Your task to perform on an android device: delete the emails in spam in the gmail app Image 0: 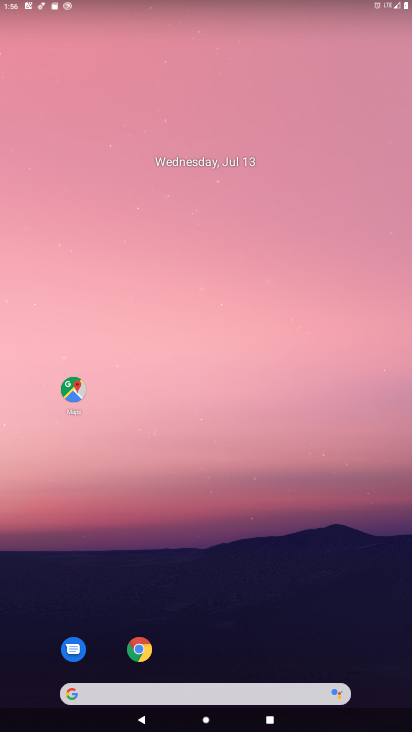
Step 0: drag from (259, 603) to (229, 133)
Your task to perform on an android device: delete the emails in spam in the gmail app Image 1: 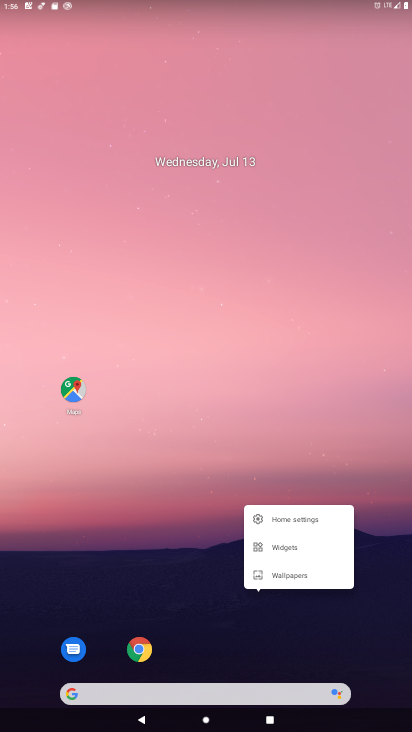
Step 1: click (269, 369)
Your task to perform on an android device: delete the emails in spam in the gmail app Image 2: 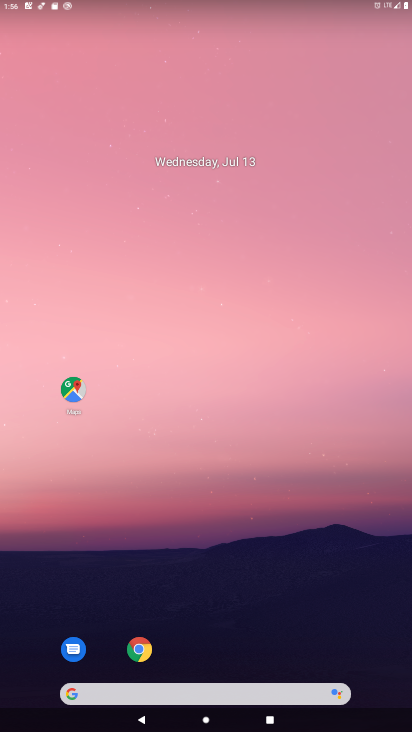
Step 2: drag from (287, 649) to (232, 160)
Your task to perform on an android device: delete the emails in spam in the gmail app Image 3: 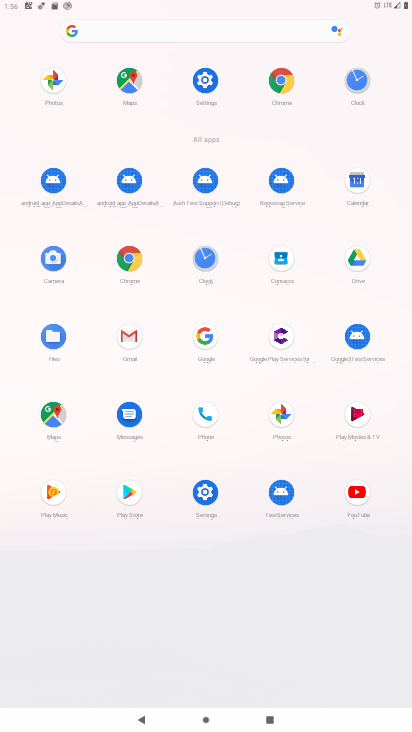
Step 3: click (123, 344)
Your task to perform on an android device: delete the emails in spam in the gmail app Image 4: 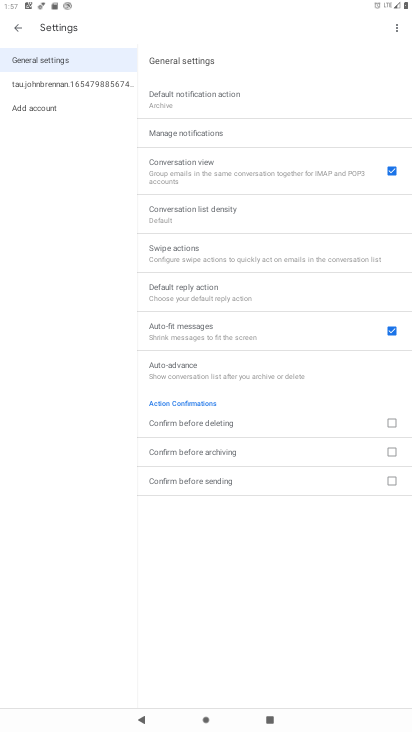
Step 4: click (19, 33)
Your task to perform on an android device: delete the emails in spam in the gmail app Image 5: 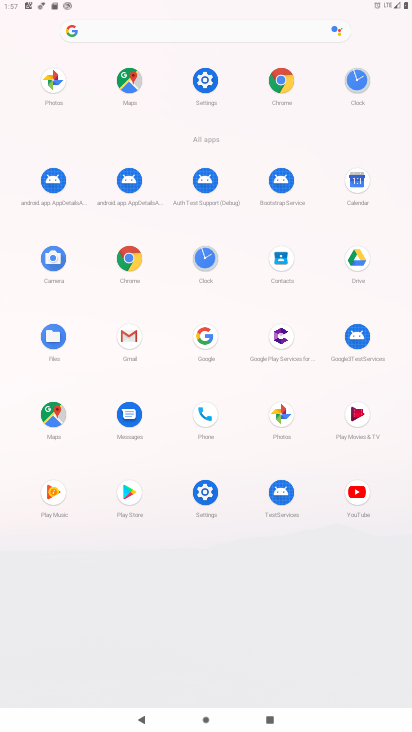
Step 5: click (145, 363)
Your task to perform on an android device: delete the emails in spam in the gmail app Image 6: 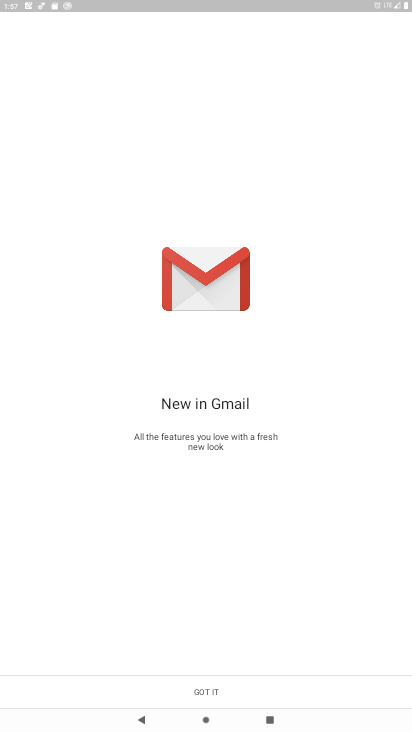
Step 6: click (212, 690)
Your task to perform on an android device: delete the emails in spam in the gmail app Image 7: 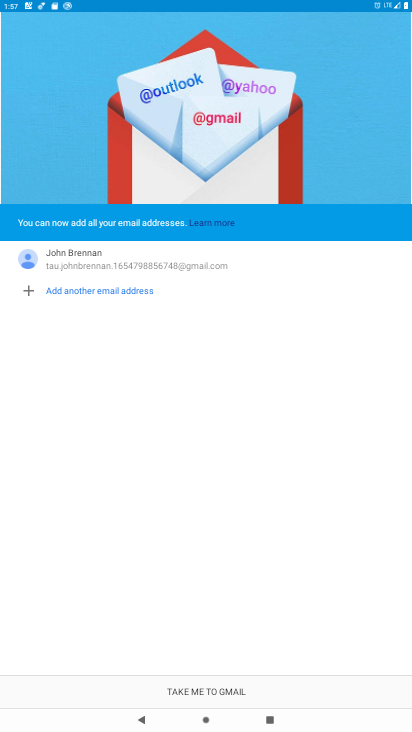
Step 7: click (212, 690)
Your task to perform on an android device: delete the emails in spam in the gmail app Image 8: 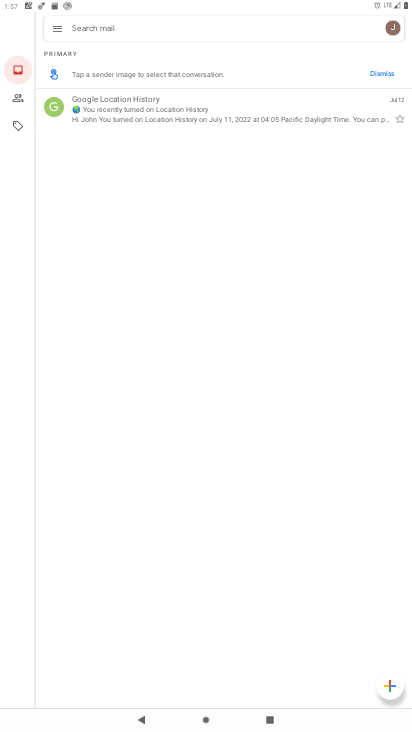
Step 8: click (164, 117)
Your task to perform on an android device: delete the emails in spam in the gmail app Image 9: 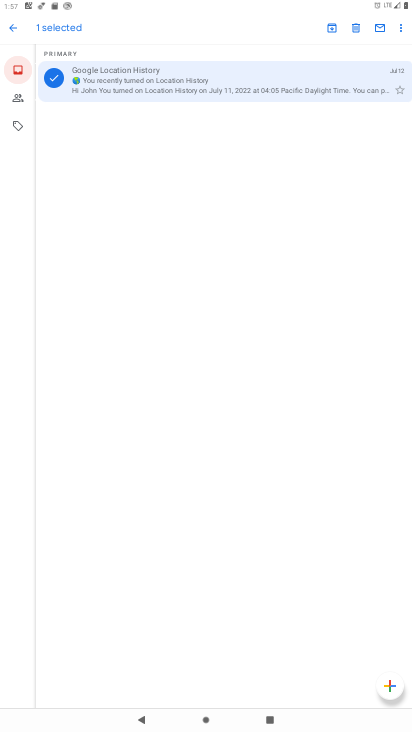
Step 9: click (355, 29)
Your task to perform on an android device: delete the emails in spam in the gmail app Image 10: 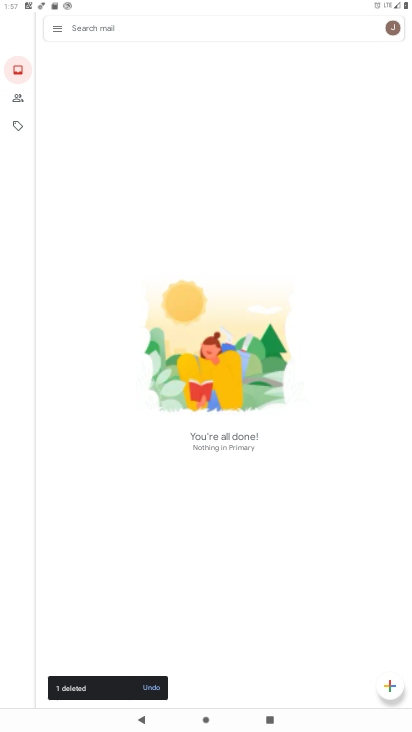
Step 10: task complete